Your task to perform on an android device: Show the shopping cart on target.com. Add "macbook pro 13 inch" to the cart on target.com Image 0: 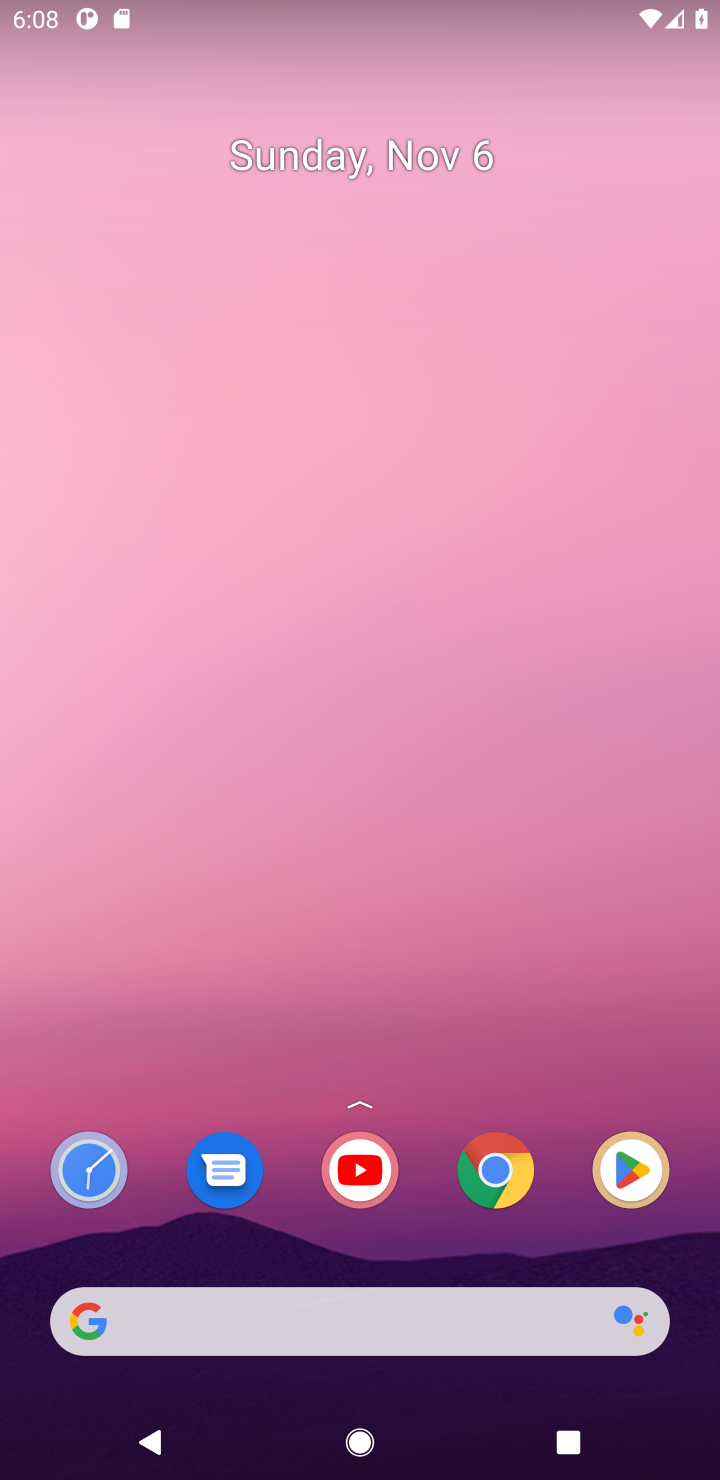
Step 0: press home button
Your task to perform on an android device: Show the shopping cart on target.com. Add "macbook pro 13 inch" to the cart on target.com Image 1: 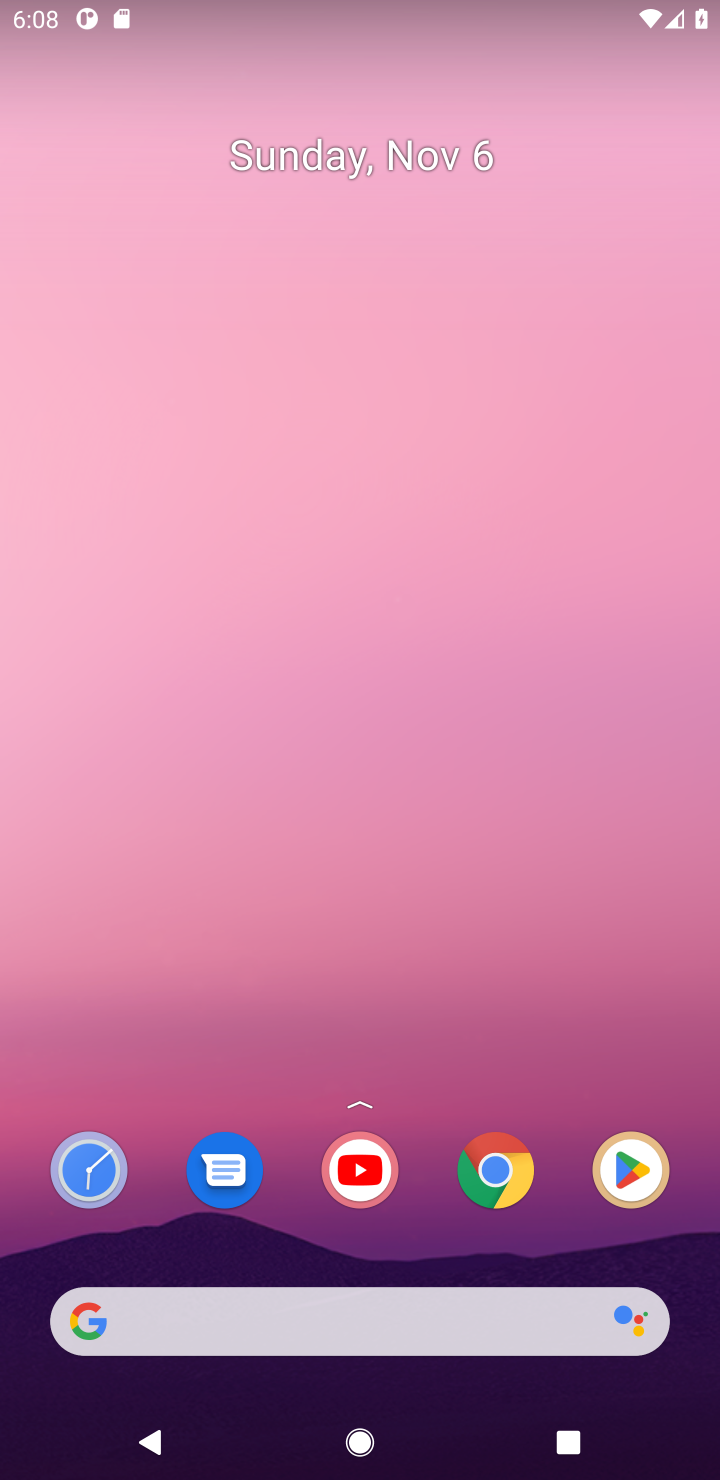
Step 1: click (497, 1176)
Your task to perform on an android device: Show the shopping cart on target.com. Add "macbook pro 13 inch" to the cart on target.com Image 2: 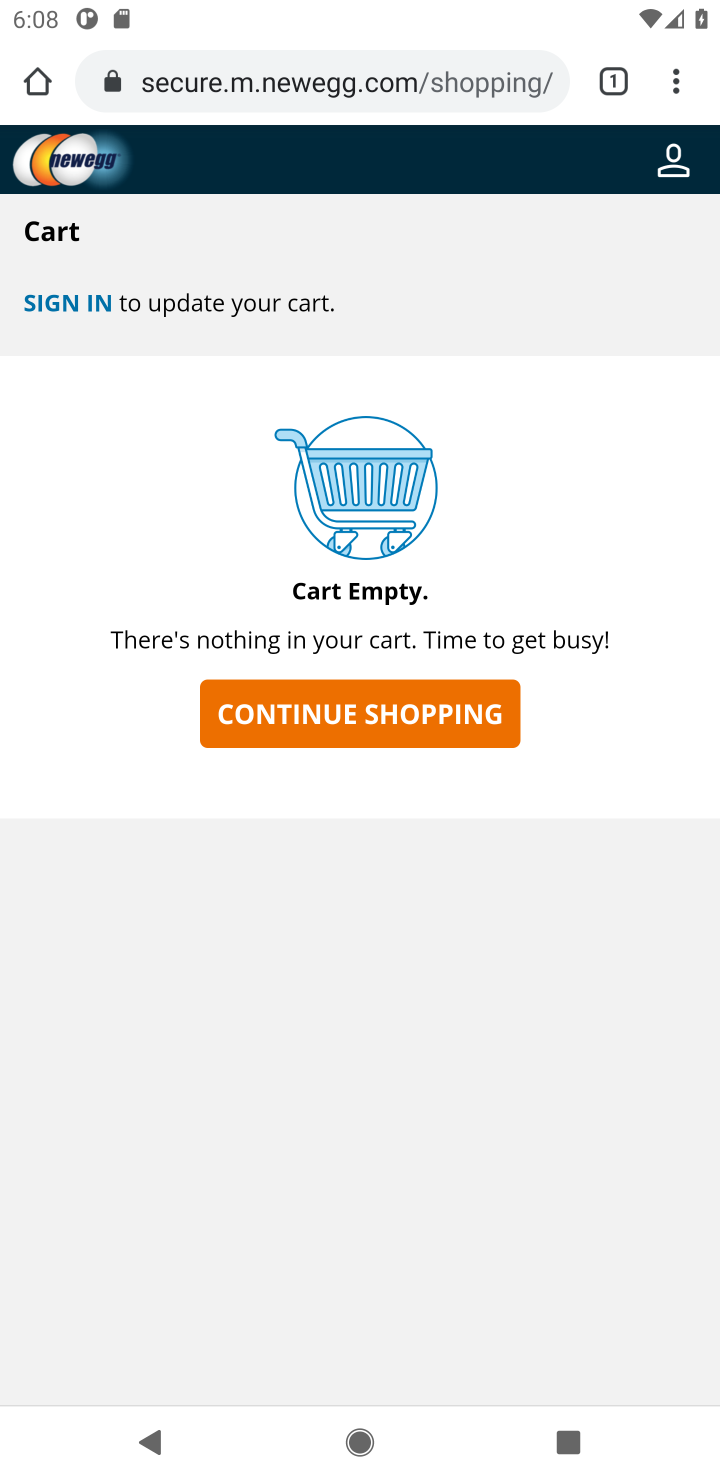
Step 2: click (418, 81)
Your task to perform on an android device: Show the shopping cart on target.com. Add "macbook pro 13 inch" to the cart on target.com Image 3: 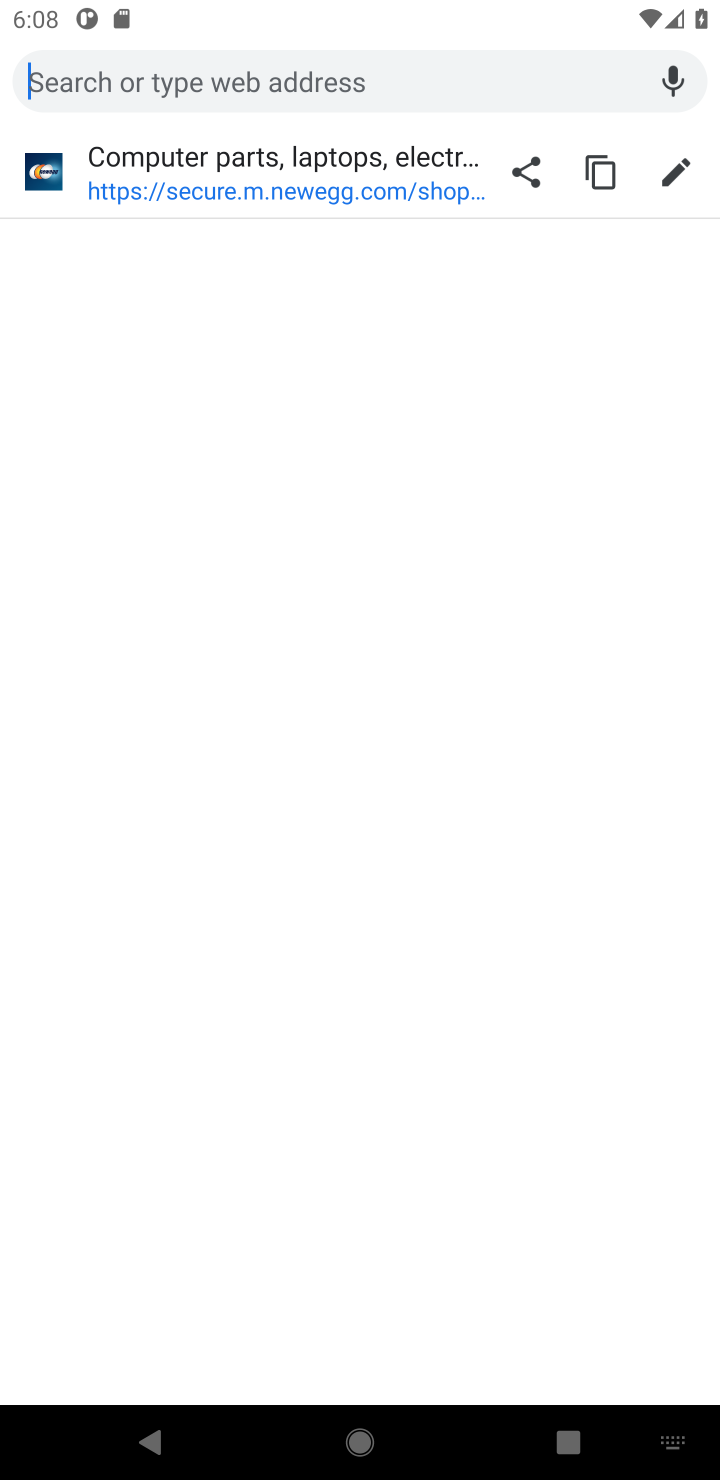
Step 3: type "target.com"
Your task to perform on an android device: Show the shopping cart on target.com. Add "macbook pro 13 inch" to the cart on target.com Image 4: 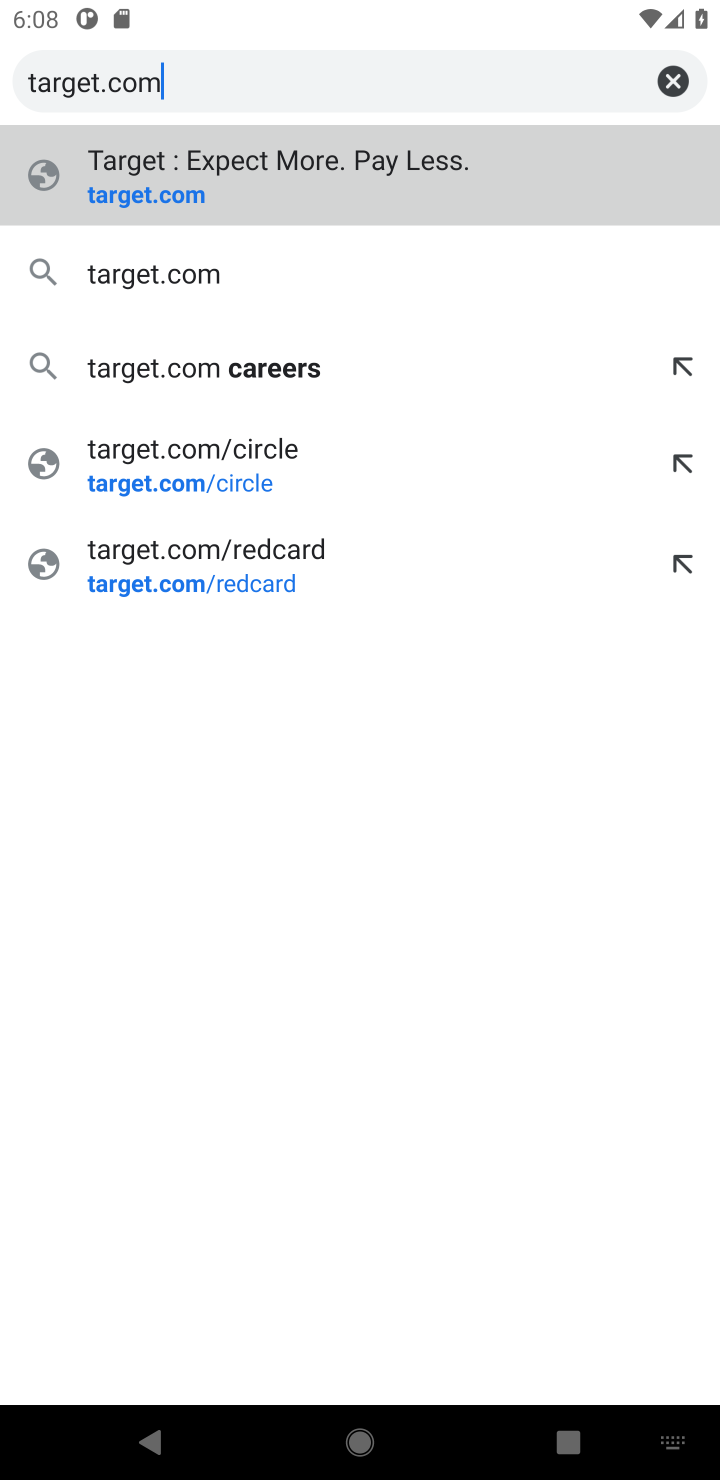
Step 4: press enter
Your task to perform on an android device: Show the shopping cart on target.com. Add "macbook pro 13 inch" to the cart on target.com Image 5: 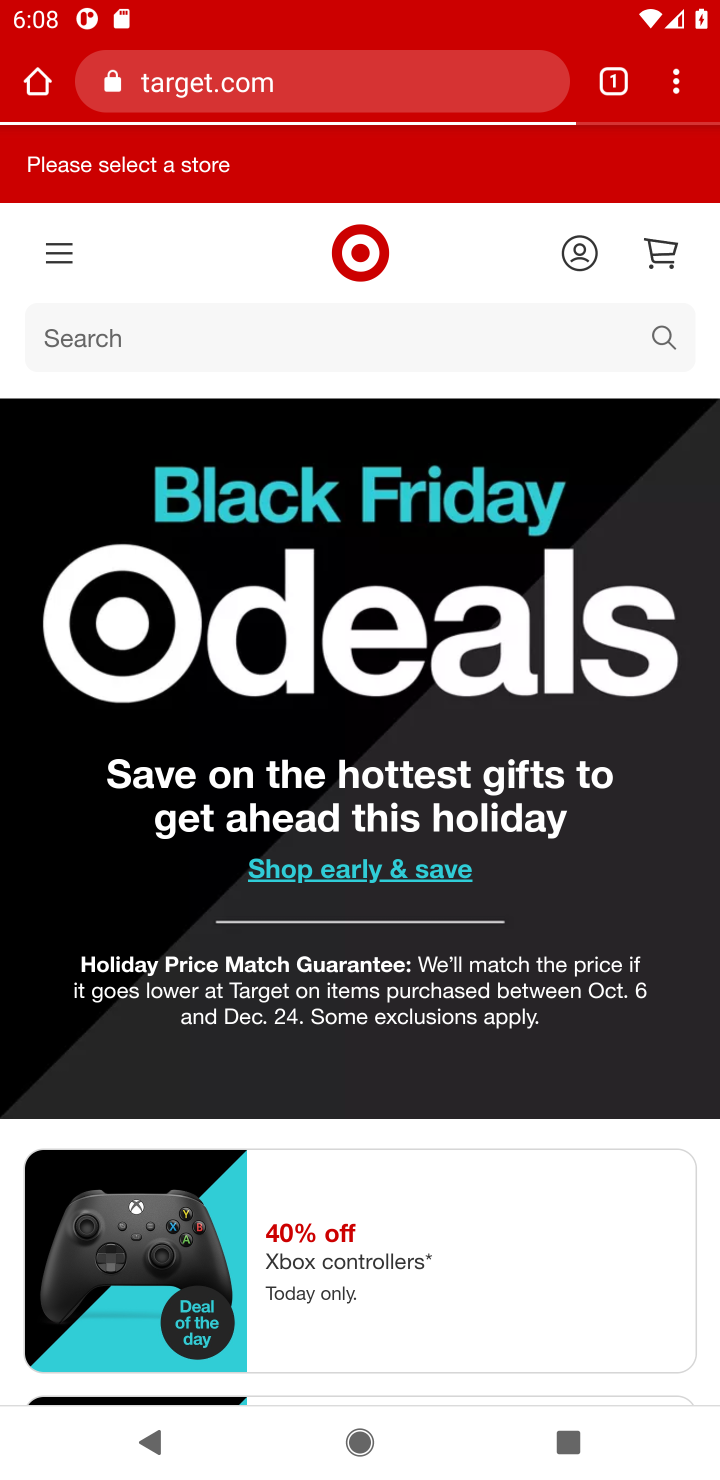
Step 5: click (663, 258)
Your task to perform on an android device: Show the shopping cart on target.com. Add "macbook pro 13 inch" to the cart on target.com Image 6: 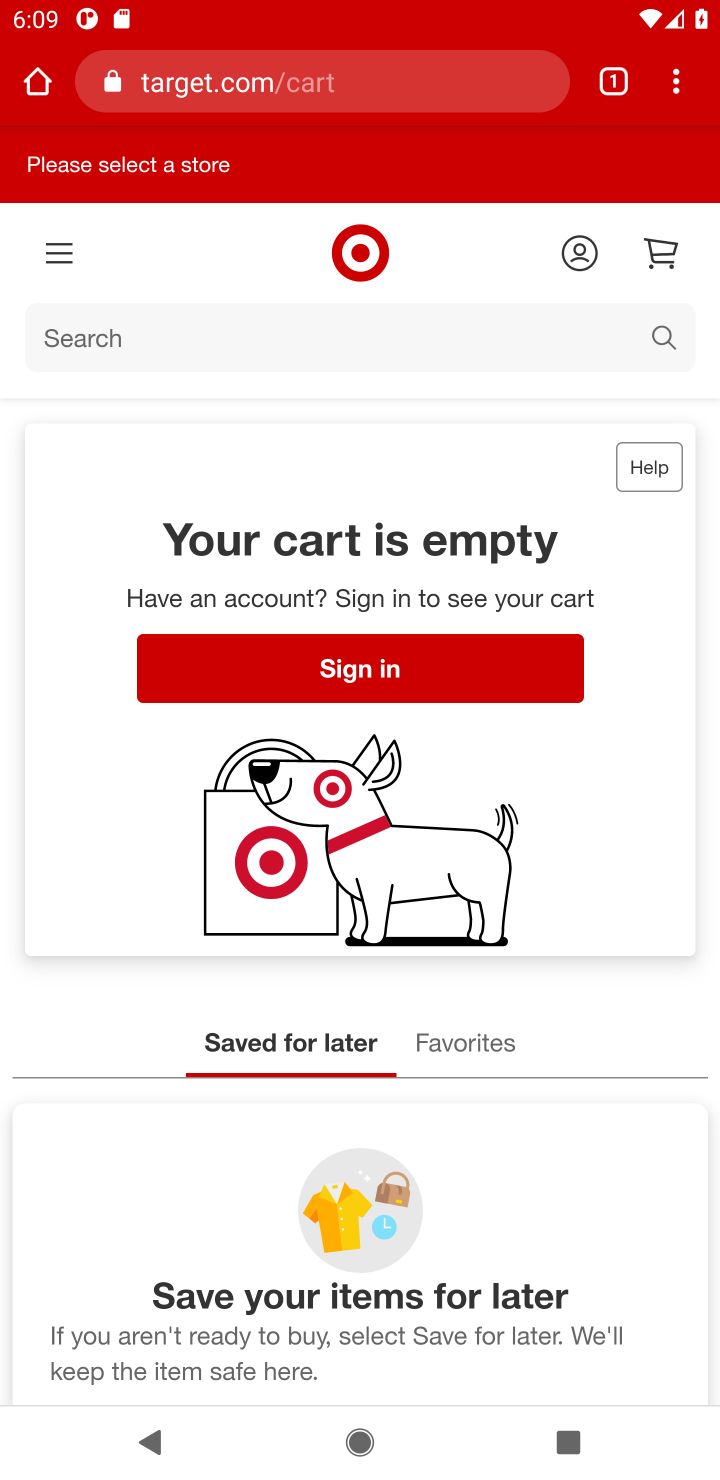
Step 6: click (511, 353)
Your task to perform on an android device: Show the shopping cart on target.com. Add "macbook pro 13 inch" to the cart on target.com Image 7: 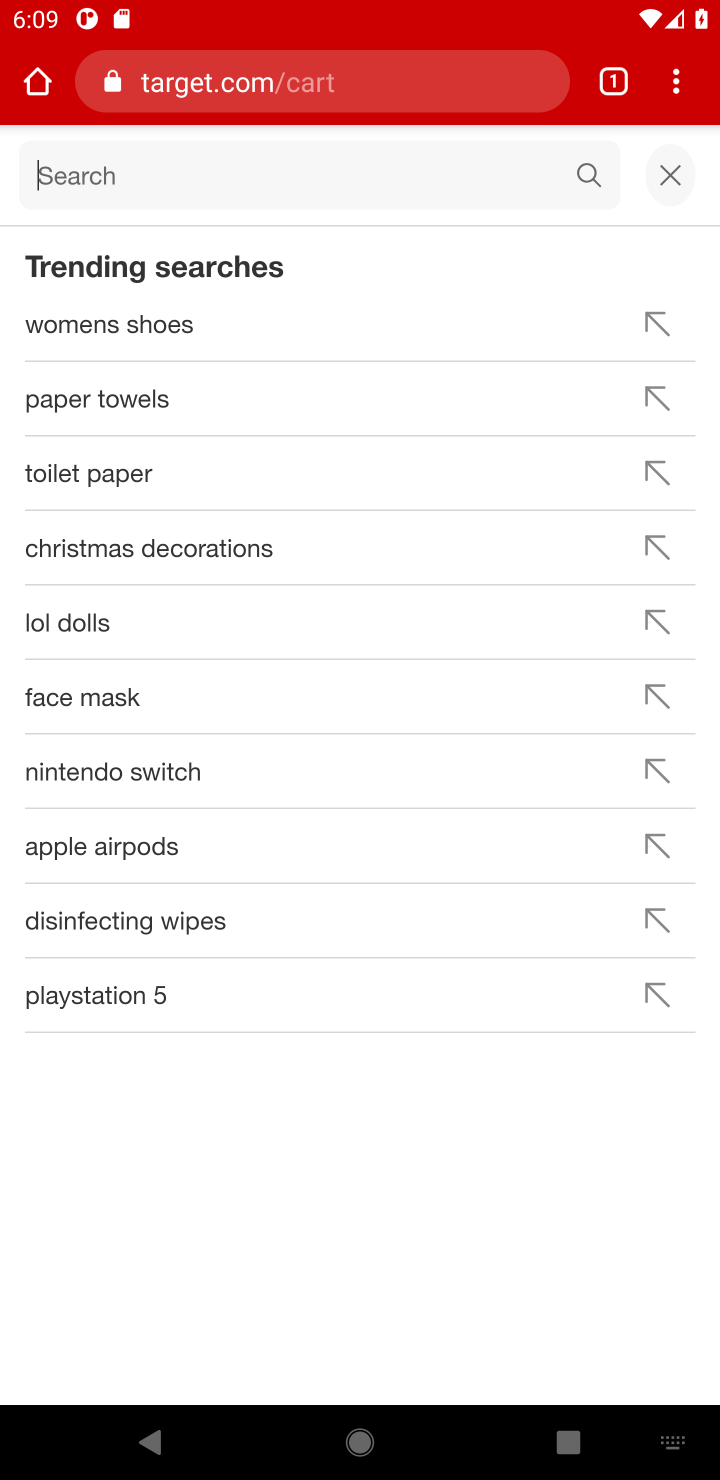
Step 7: type "macbook pro 13 inch"
Your task to perform on an android device: Show the shopping cart on target.com. Add "macbook pro 13 inch" to the cart on target.com Image 8: 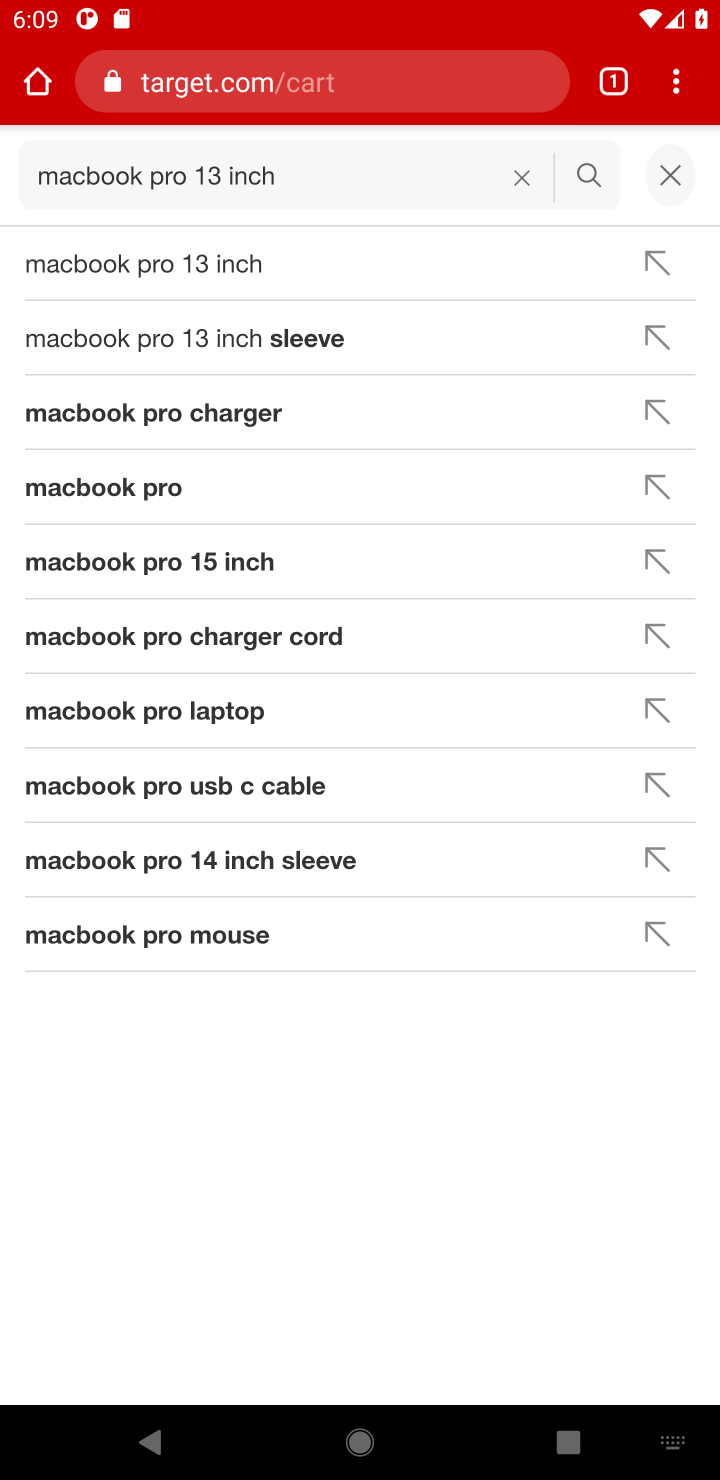
Step 8: click (171, 266)
Your task to perform on an android device: Show the shopping cart on target.com. Add "macbook pro 13 inch" to the cart on target.com Image 9: 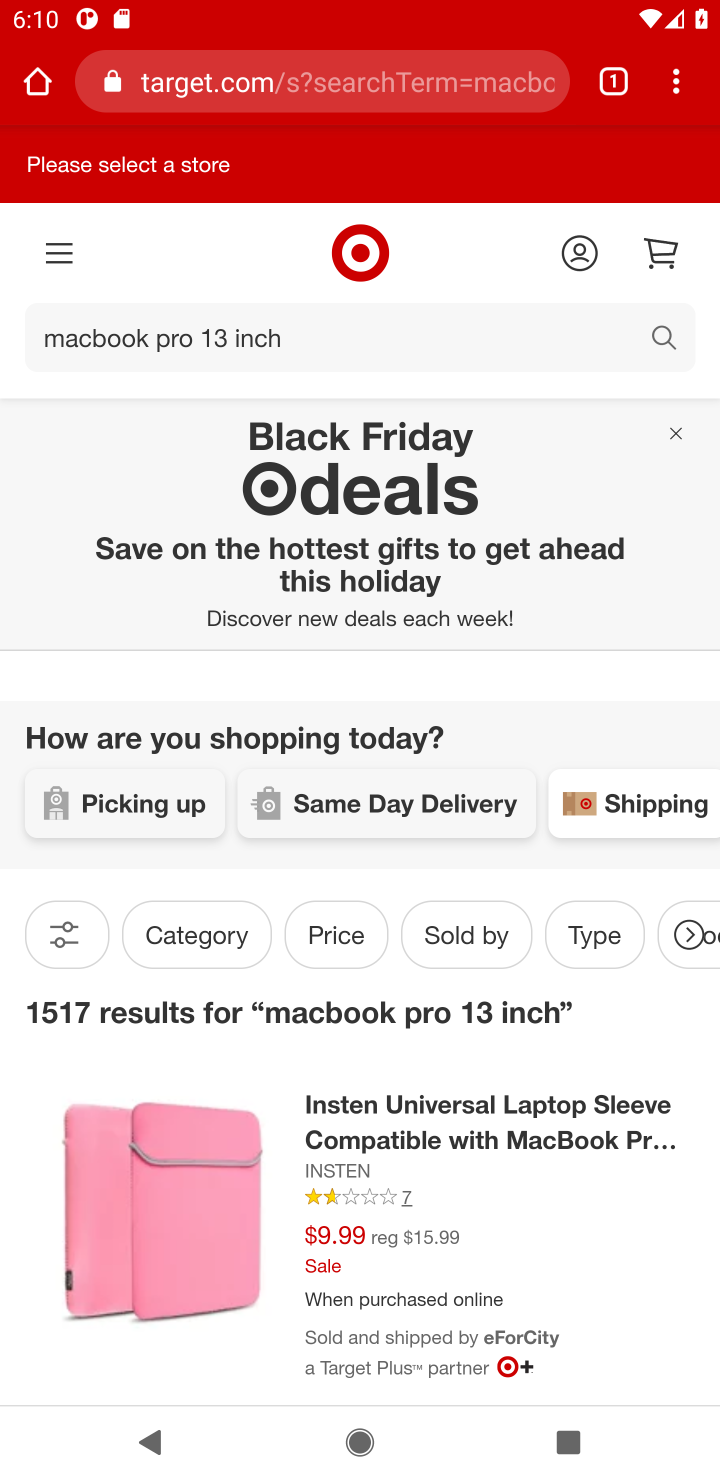
Step 9: task complete